Your task to perform on an android device: Go to network settings Image 0: 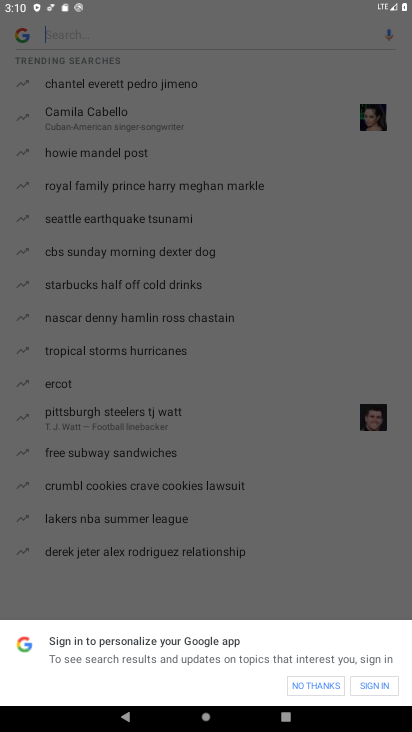
Step 0: press back button
Your task to perform on an android device: Go to network settings Image 1: 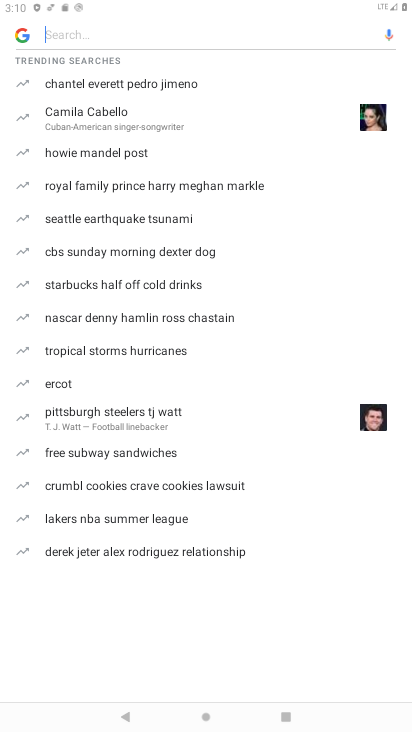
Step 1: press back button
Your task to perform on an android device: Go to network settings Image 2: 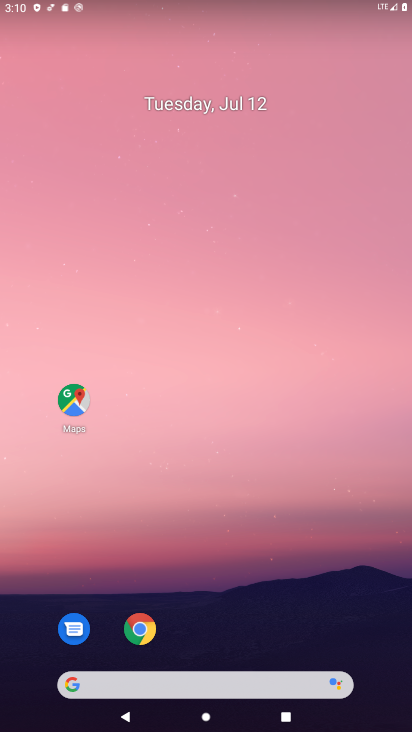
Step 2: drag from (282, 591) to (153, 2)
Your task to perform on an android device: Go to network settings Image 3: 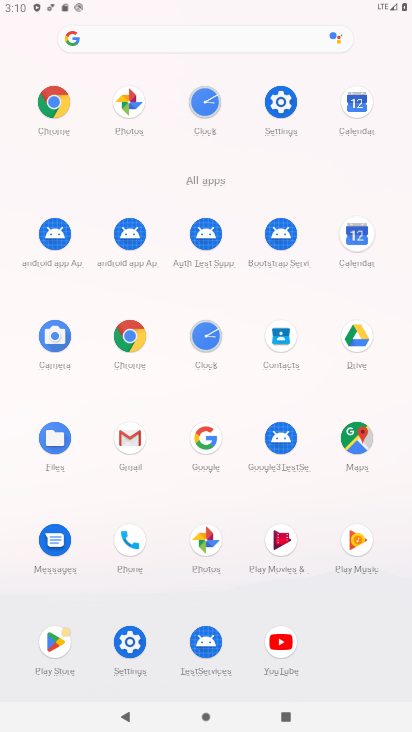
Step 3: click (286, 98)
Your task to perform on an android device: Go to network settings Image 4: 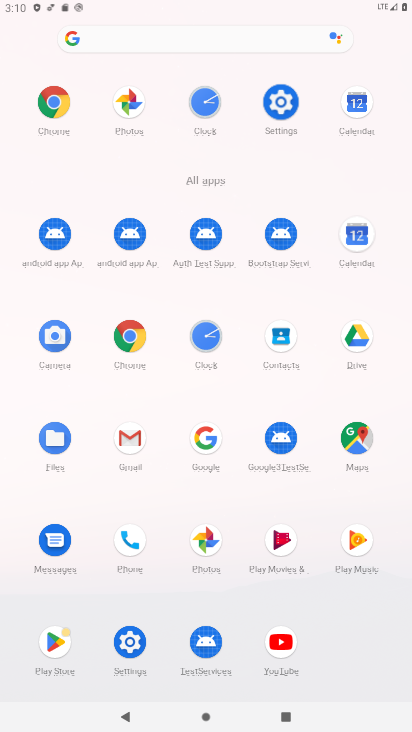
Step 4: click (285, 99)
Your task to perform on an android device: Go to network settings Image 5: 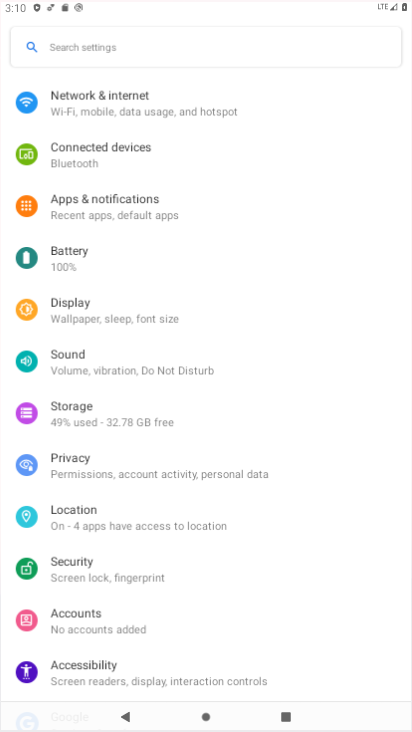
Step 5: click (285, 99)
Your task to perform on an android device: Go to network settings Image 6: 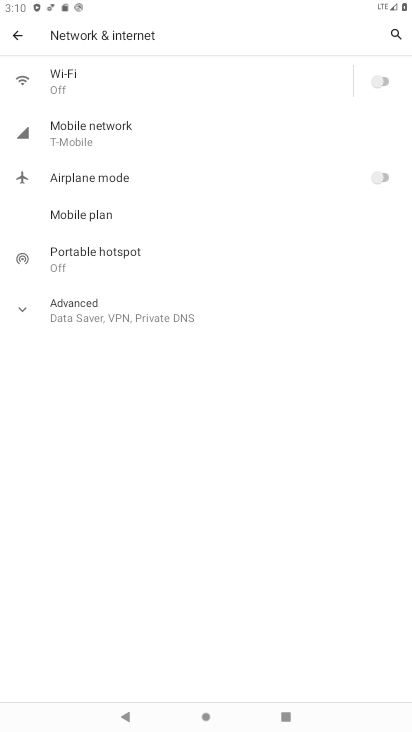
Step 6: click (5, 23)
Your task to perform on an android device: Go to network settings Image 7: 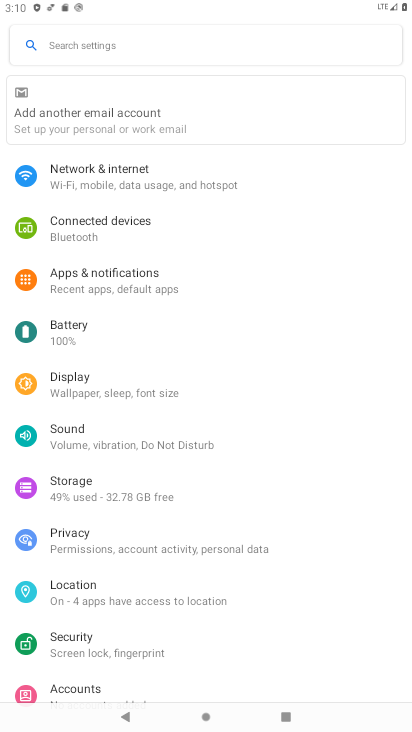
Step 7: task complete